Your task to perform on an android device: turn on improve location accuracy Image 0: 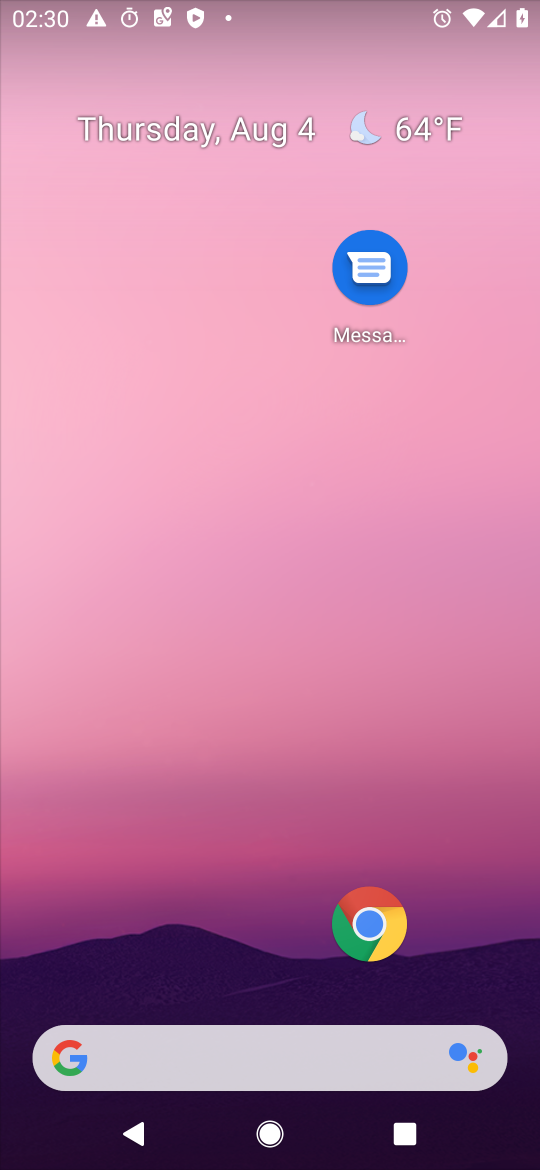
Step 0: drag from (85, 893) to (176, 83)
Your task to perform on an android device: turn on improve location accuracy Image 1: 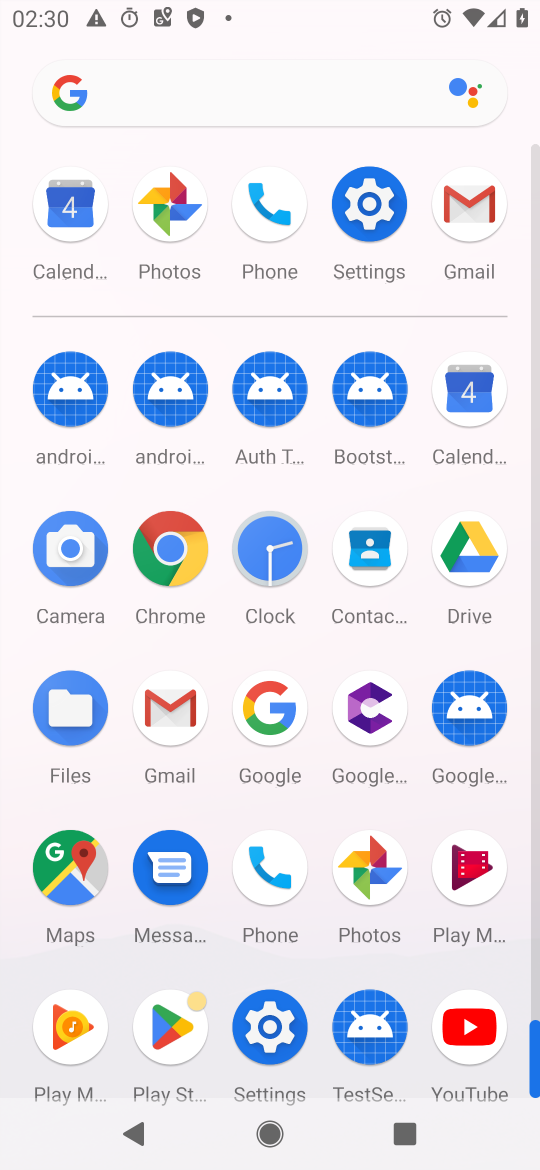
Step 1: click (250, 1045)
Your task to perform on an android device: turn on improve location accuracy Image 2: 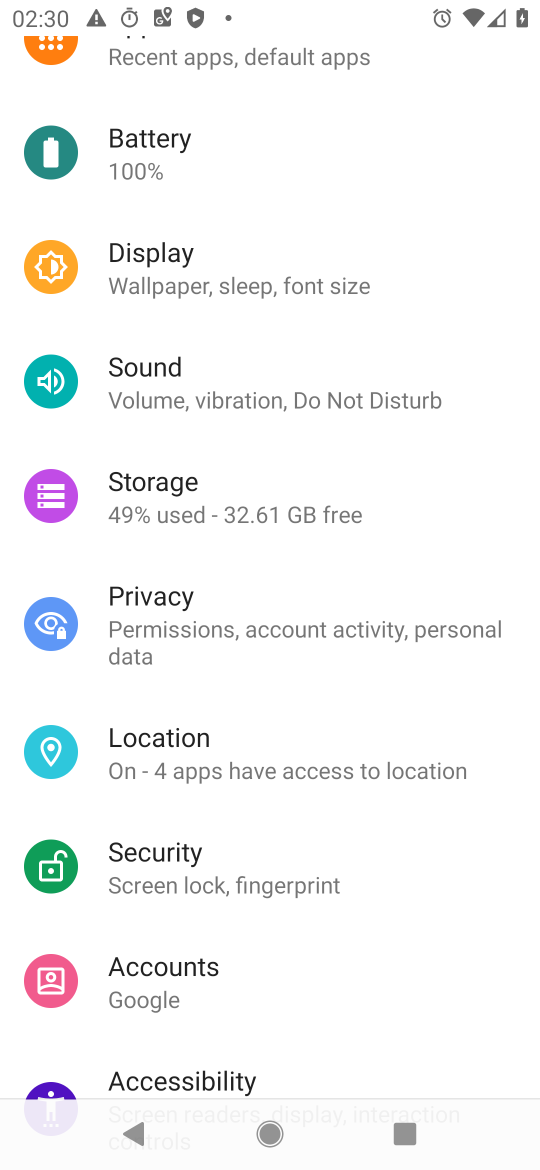
Step 2: drag from (258, 122) to (334, 780)
Your task to perform on an android device: turn on improve location accuracy Image 3: 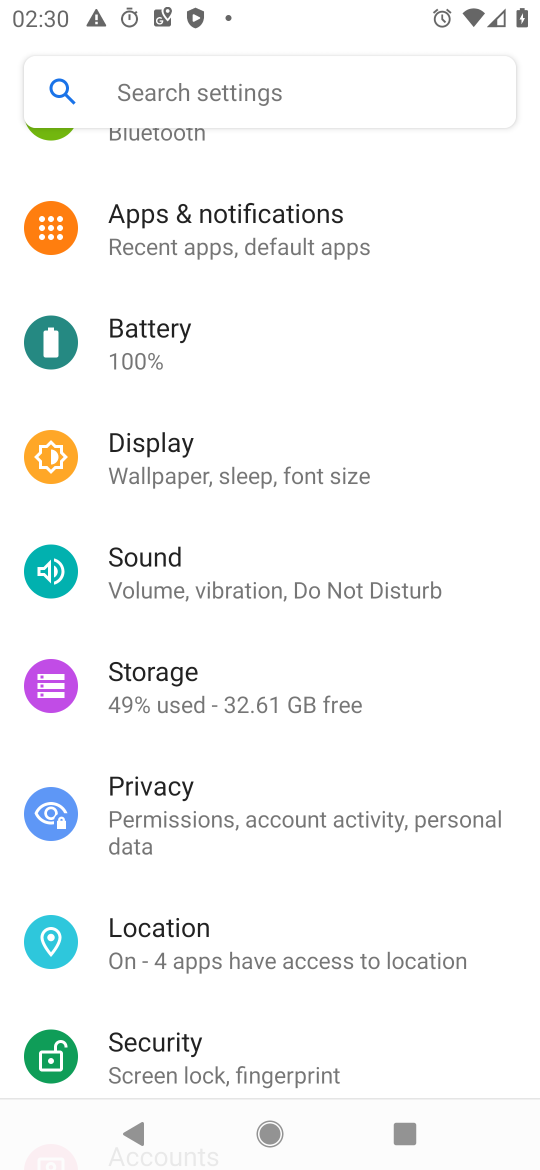
Step 3: click (227, 939)
Your task to perform on an android device: turn on improve location accuracy Image 4: 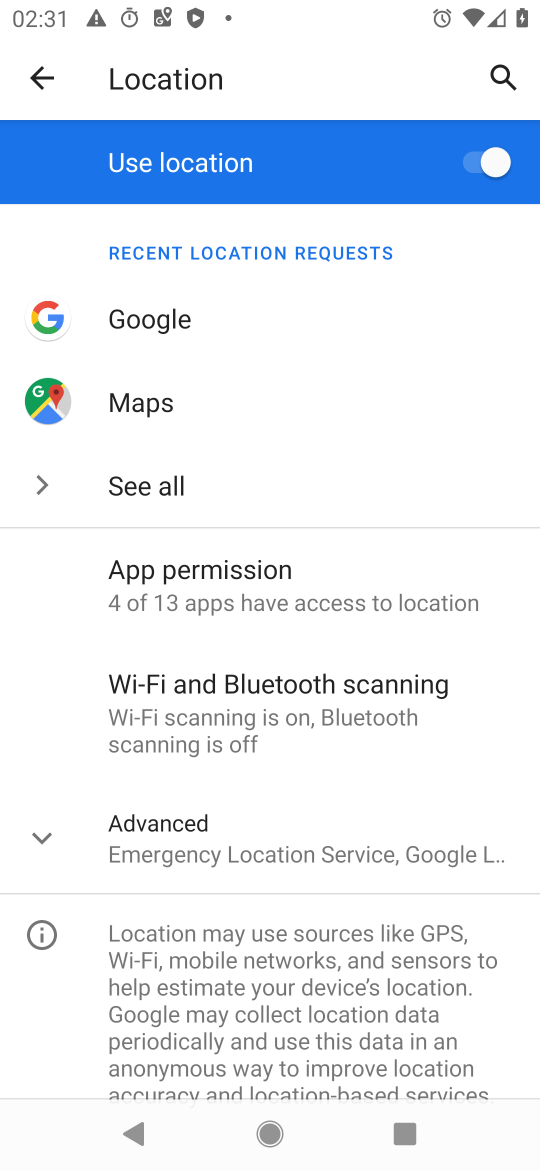
Step 4: click (186, 841)
Your task to perform on an android device: turn on improve location accuracy Image 5: 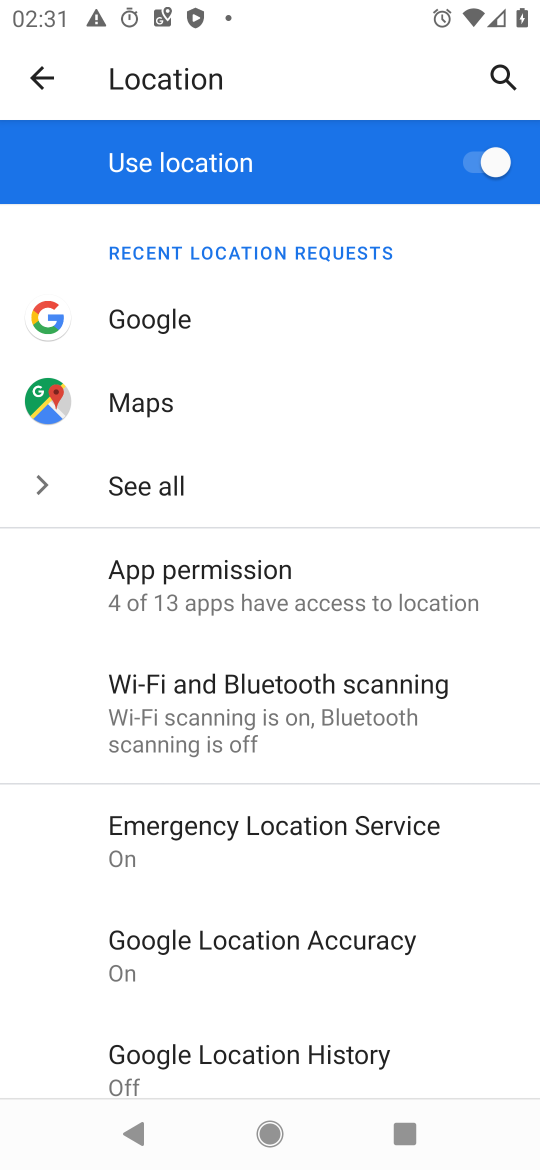
Step 5: task complete